Your task to perform on an android device: toggle improve location accuracy Image 0: 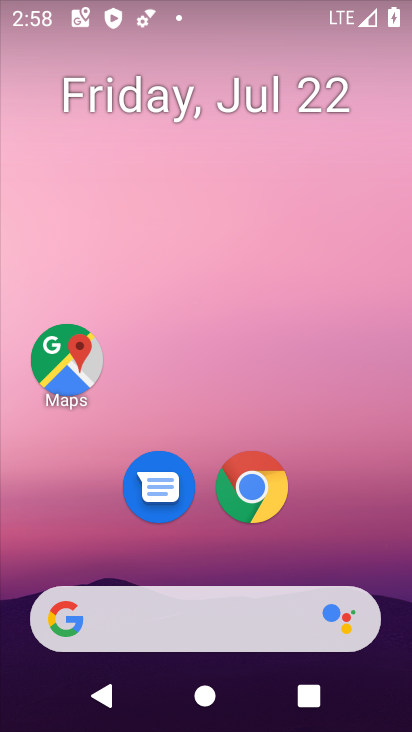
Step 0: drag from (165, 562) to (276, 9)
Your task to perform on an android device: toggle improve location accuracy Image 1: 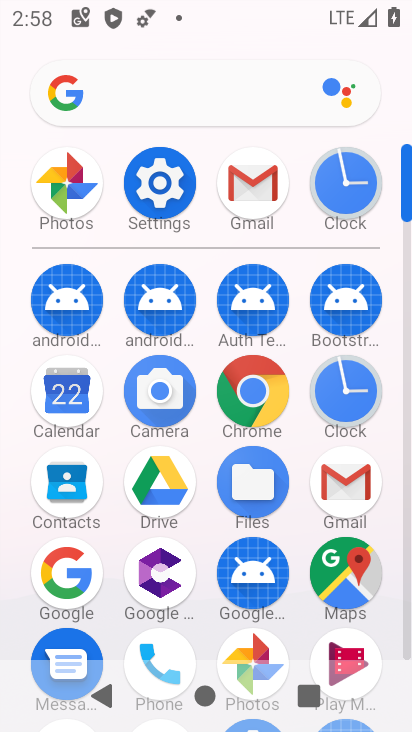
Step 1: click (164, 186)
Your task to perform on an android device: toggle improve location accuracy Image 2: 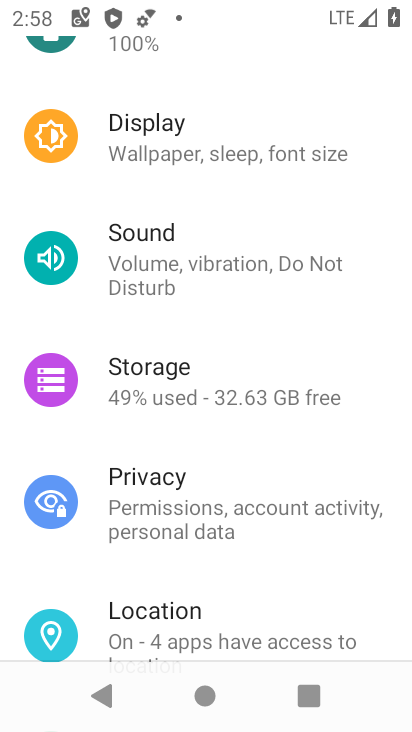
Step 2: click (172, 623)
Your task to perform on an android device: toggle improve location accuracy Image 3: 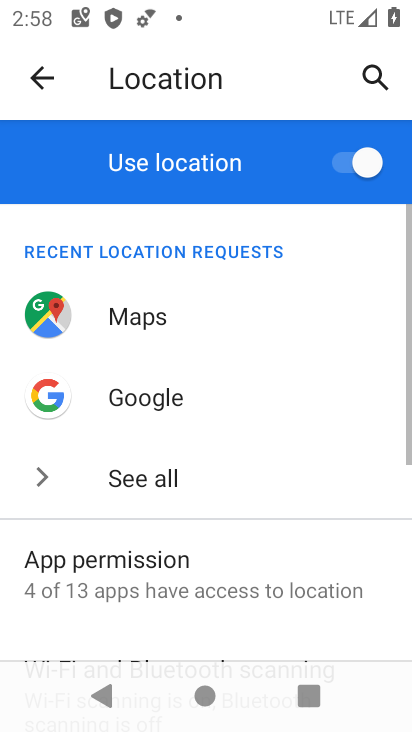
Step 3: drag from (240, 573) to (322, 61)
Your task to perform on an android device: toggle improve location accuracy Image 4: 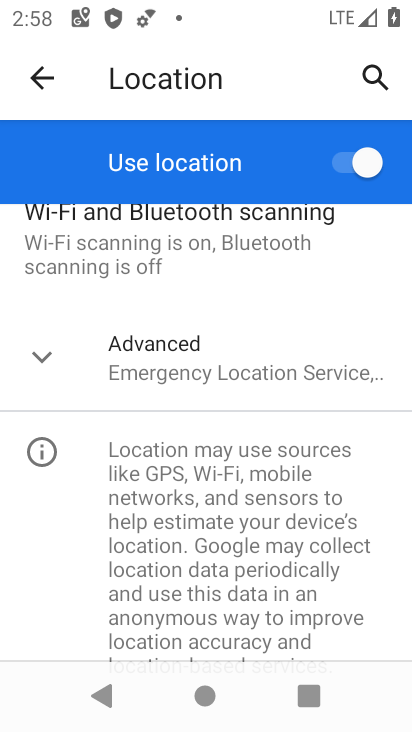
Step 4: click (242, 373)
Your task to perform on an android device: toggle improve location accuracy Image 5: 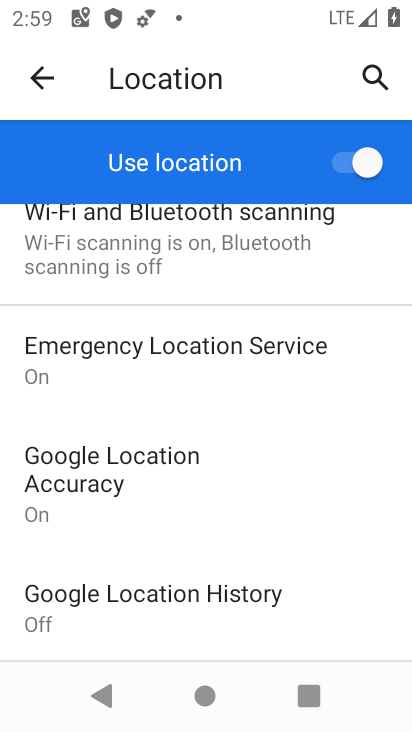
Step 5: click (87, 484)
Your task to perform on an android device: toggle improve location accuracy Image 6: 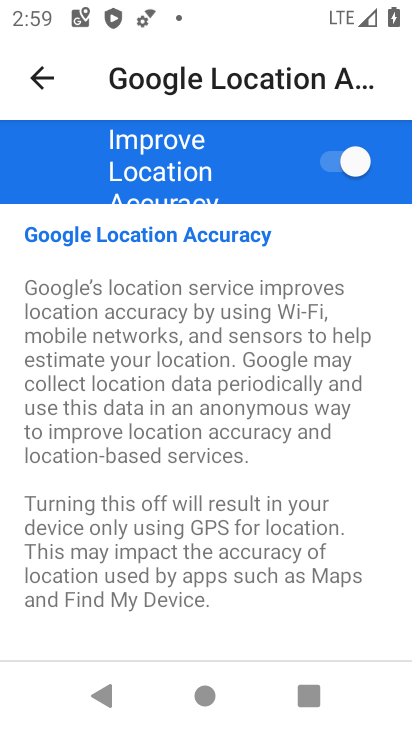
Step 6: task complete